Your task to perform on an android device: What's on my calendar tomorrow? Image 0: 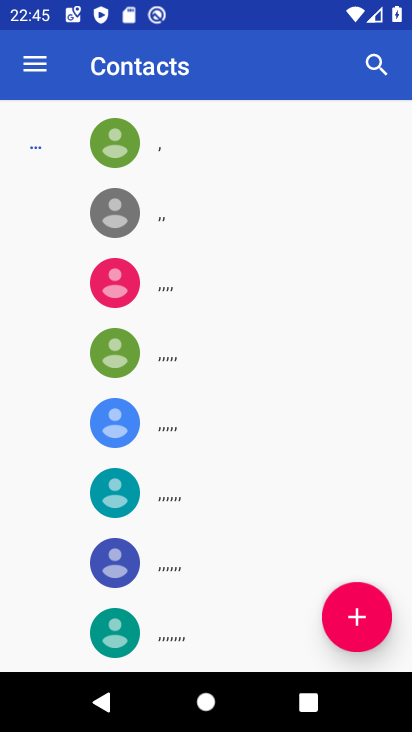
Step 0: press home button
Your task to perform on an android device: What's on my calendar tomorrow? Image 1: 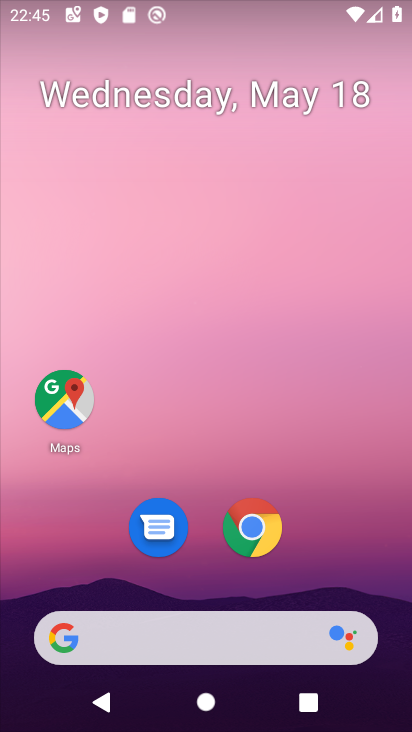
Step 1: drag from (338, 535) to (319, 77)
Your task to perform on an android device: What's on my calendar tomorrow? Image 2: 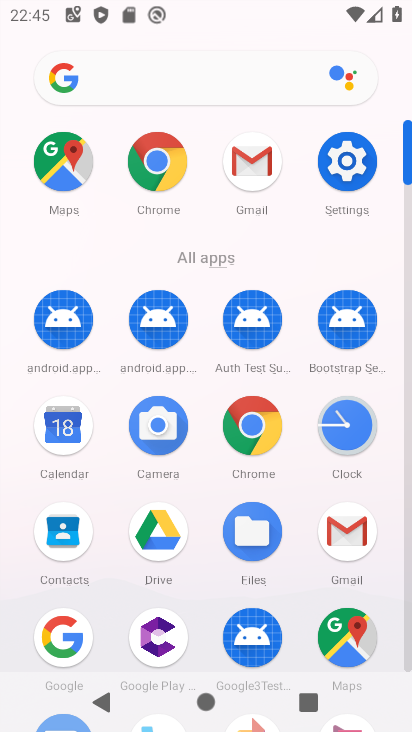
Step 2: click (56, 431)
Your task to perform on an android device: What's on my calendar tomorrow? Image 3: 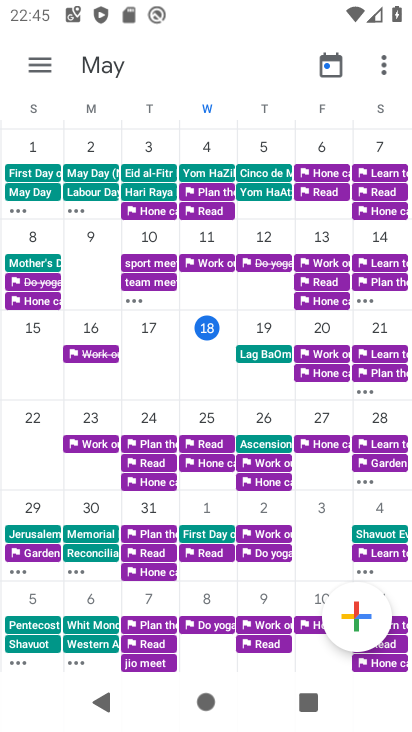
Step 3: task complete